Your task to perform on an android device: Go to eBay Image 0: 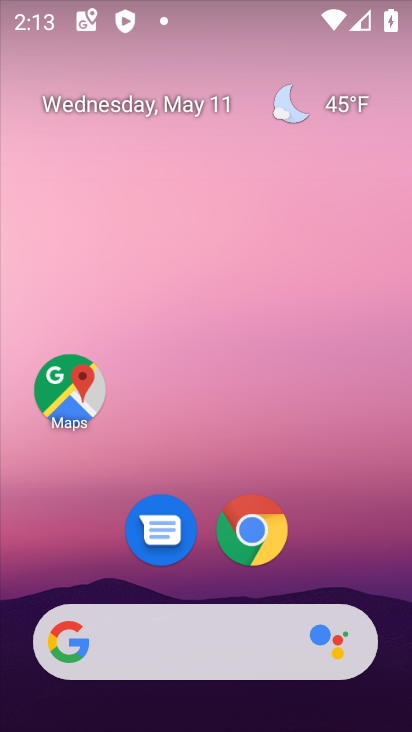
Step 0: drag from (279, 369) to (215, 140)
Your task to perform on an android device: Go to eBay Image 1: 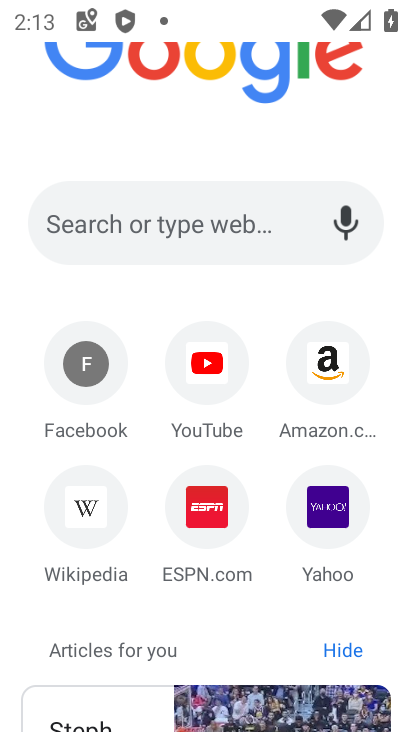
Step 1: click (122, 215)
Your task to perform on an android device: Go to eBay Image 2: 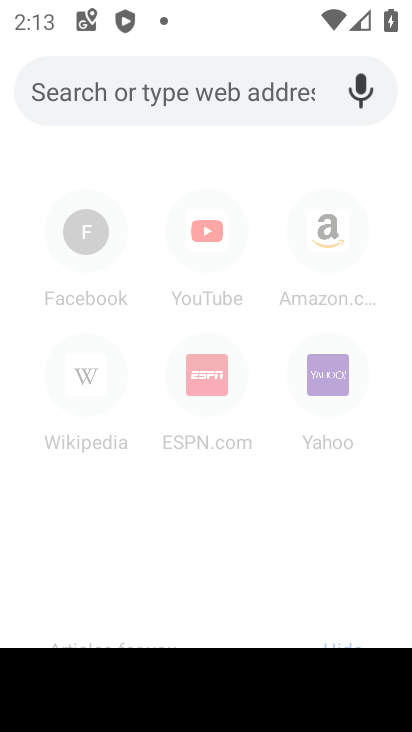
Step 2: type "ebay.com"
Your task to perform on an android device: Go to eBay Image 3: 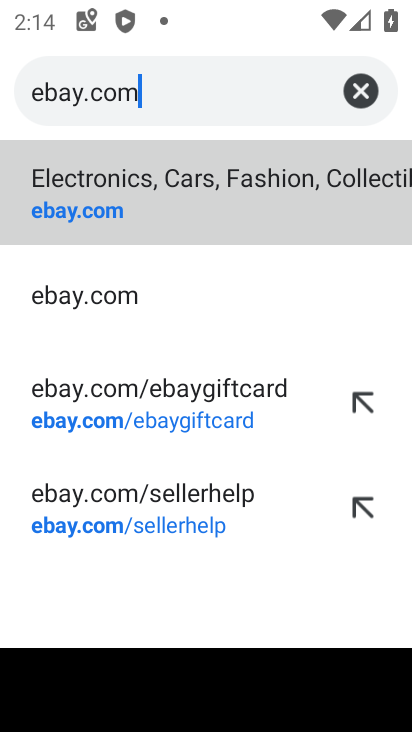
Step 3: click (87, 210)
Your task to perform on an android device: Go to eBay Image 4: 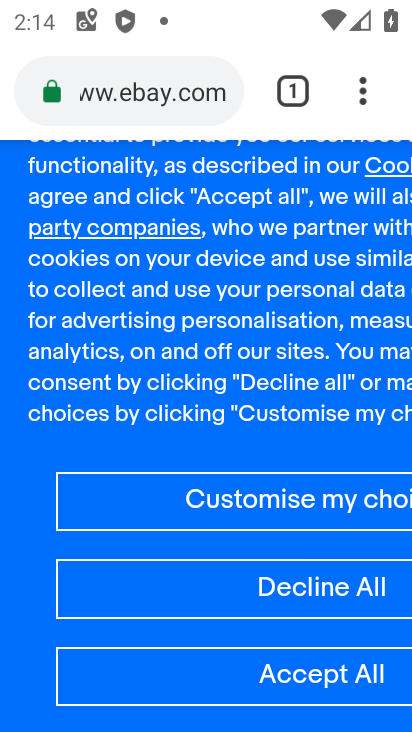
Step 4: task complete